Your task to perform on an android device: Open sound settings Image 0: 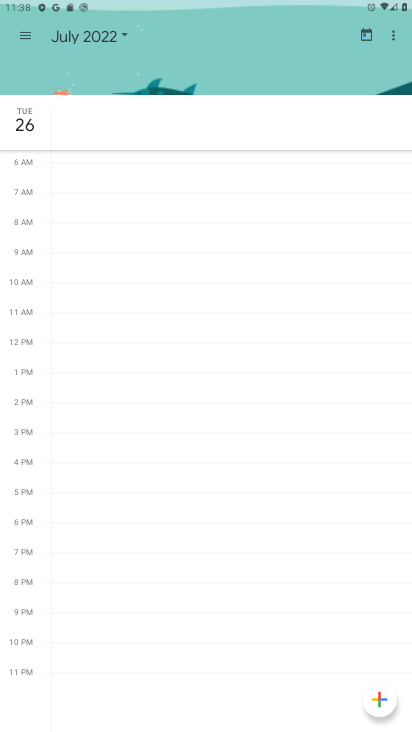
Step 0: press home button
Your task to perform on an android device: Open sound settings Image 1: 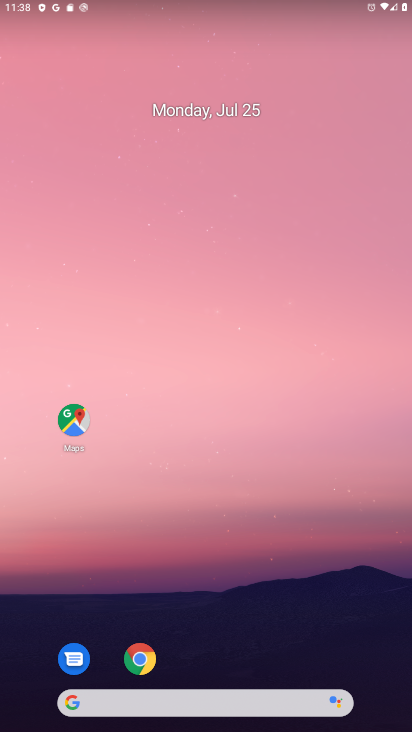
Step 1: drag from (214, 590) to (195, 179)
Your task to perform on an android device: Open sound settings Image 2: 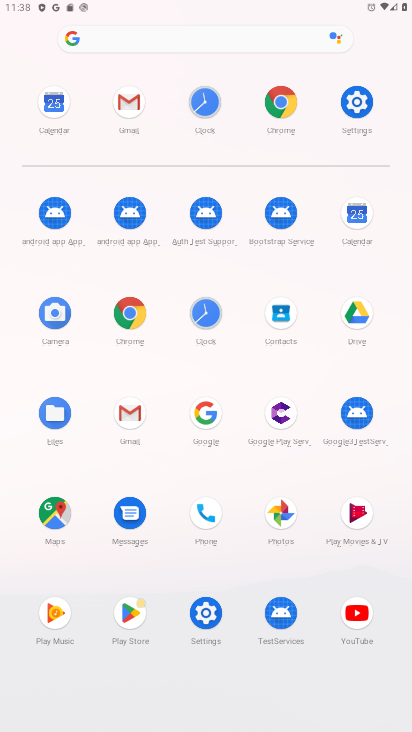
Step 2: drag from (223, 572) to (215, 333)
Your task to perform on an android device: Open sound settings Image 3: 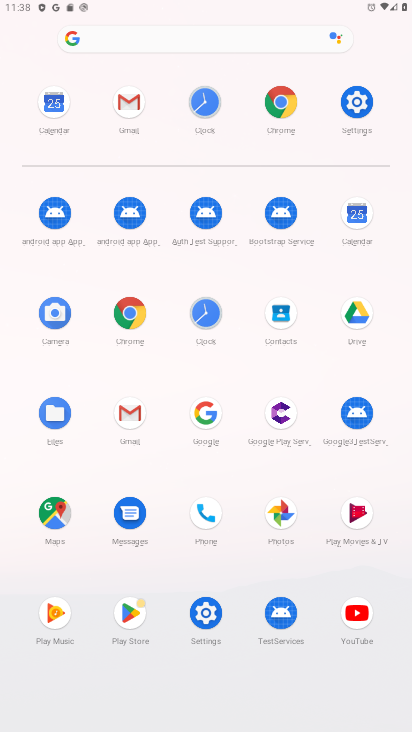
Step 3: click (353, 99)
Your task to perform on an android device: Open sound settings Image 4: 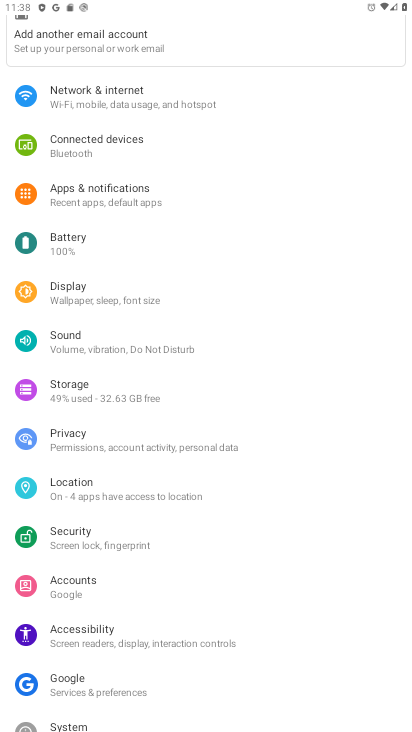
Step 4: click (66, 340)
Your task to perform on an android device: Open sound settings Image 5: 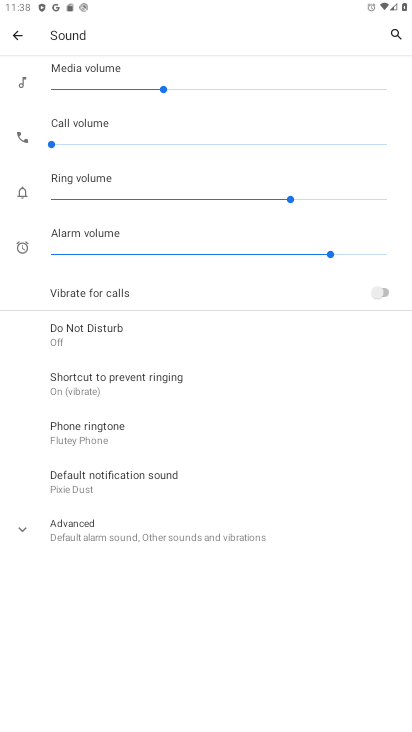
Step 5: task complete